Your task to perform on an android device: open chrome privacy settings Image 0: 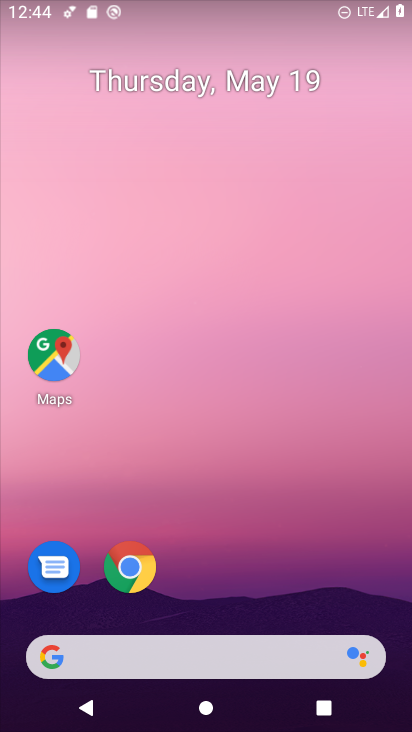
Step 0: drag from (243, 554) to (223, 114)
Your task to perform on an android device: open chrome privacy settings Image 1: 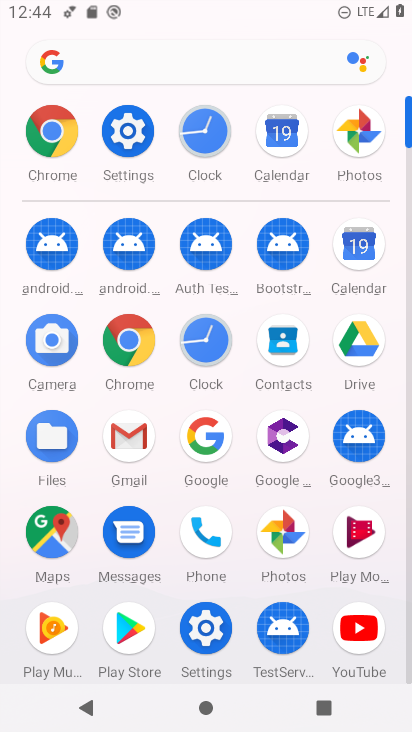
Step 1: click (131, 126)
Your task to perform on an android device: open chrome privacy settings Image 2: 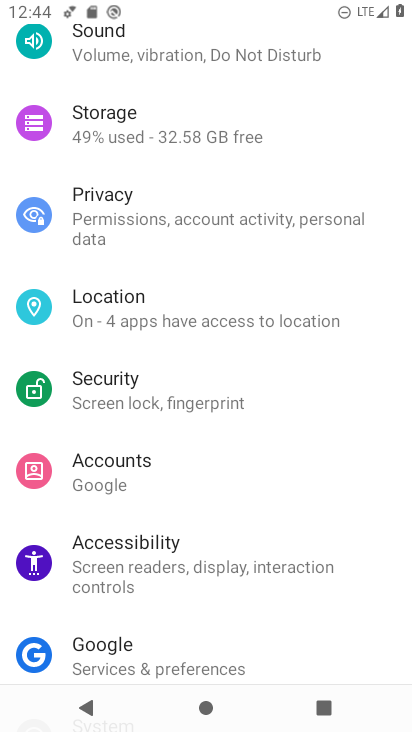
Step 2: press home button
Your task to perform on an android device: open chrome privacy settings Image 3: 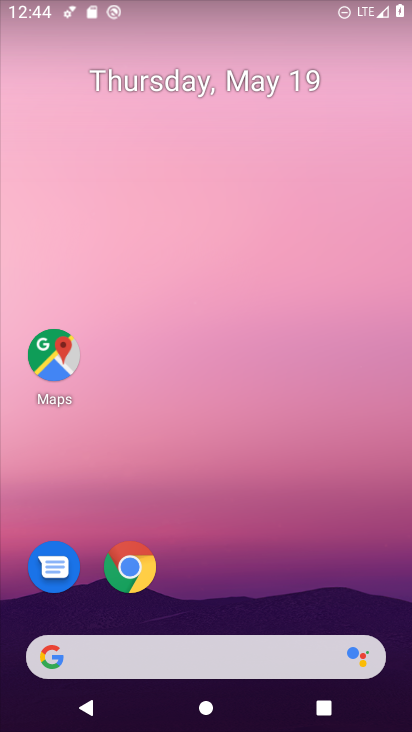
Step 3: click (128, 574)
Your task to perform on an android device: open chrome privacy settings Image 4: 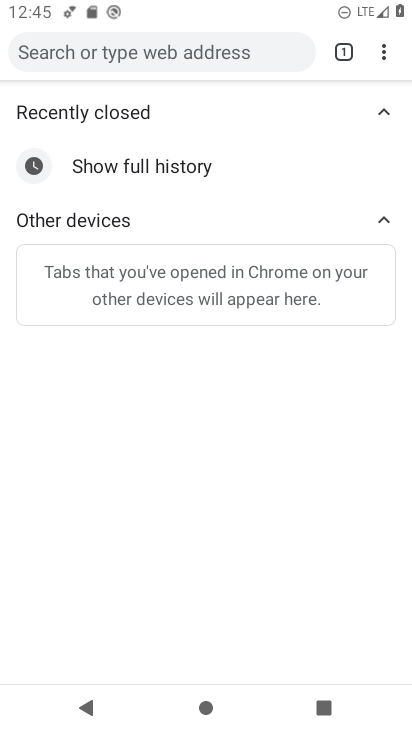
Step 4: click (385, 56)
Your task to perform on an android device: open chrome privacy settings Image 5: 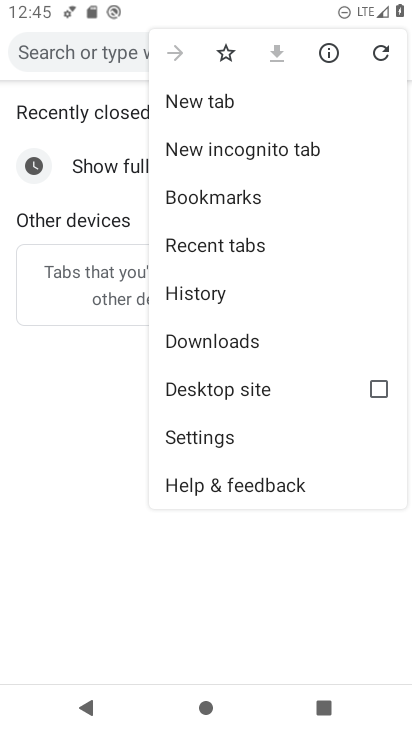
Step 5: click (216, 431)
Your task to perform on an android device: open chrome privacy settings Image 6: 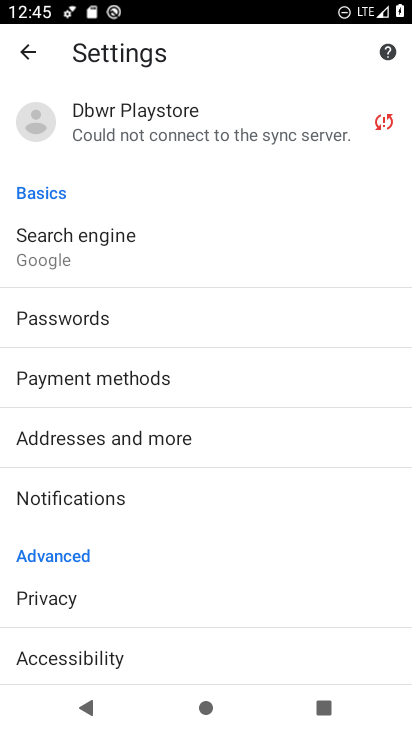
Step 6: click (136, 598)
Your task to perform on an android device: open chrome privacy settings Image 7: 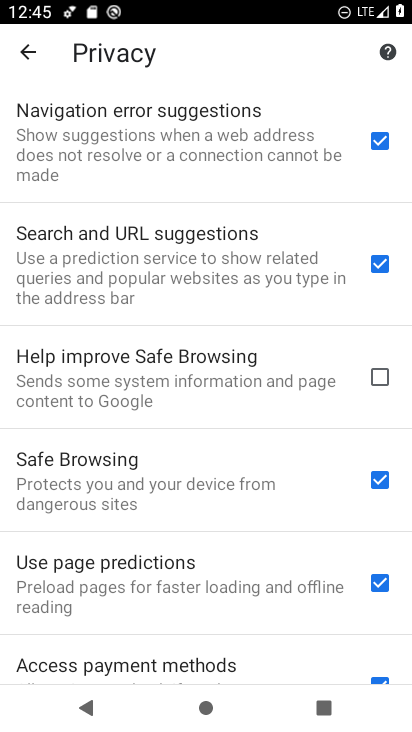
Step 7: task complete